Your task to perform on an android device: Add "acer predator" to the cart on newegg Image 0: 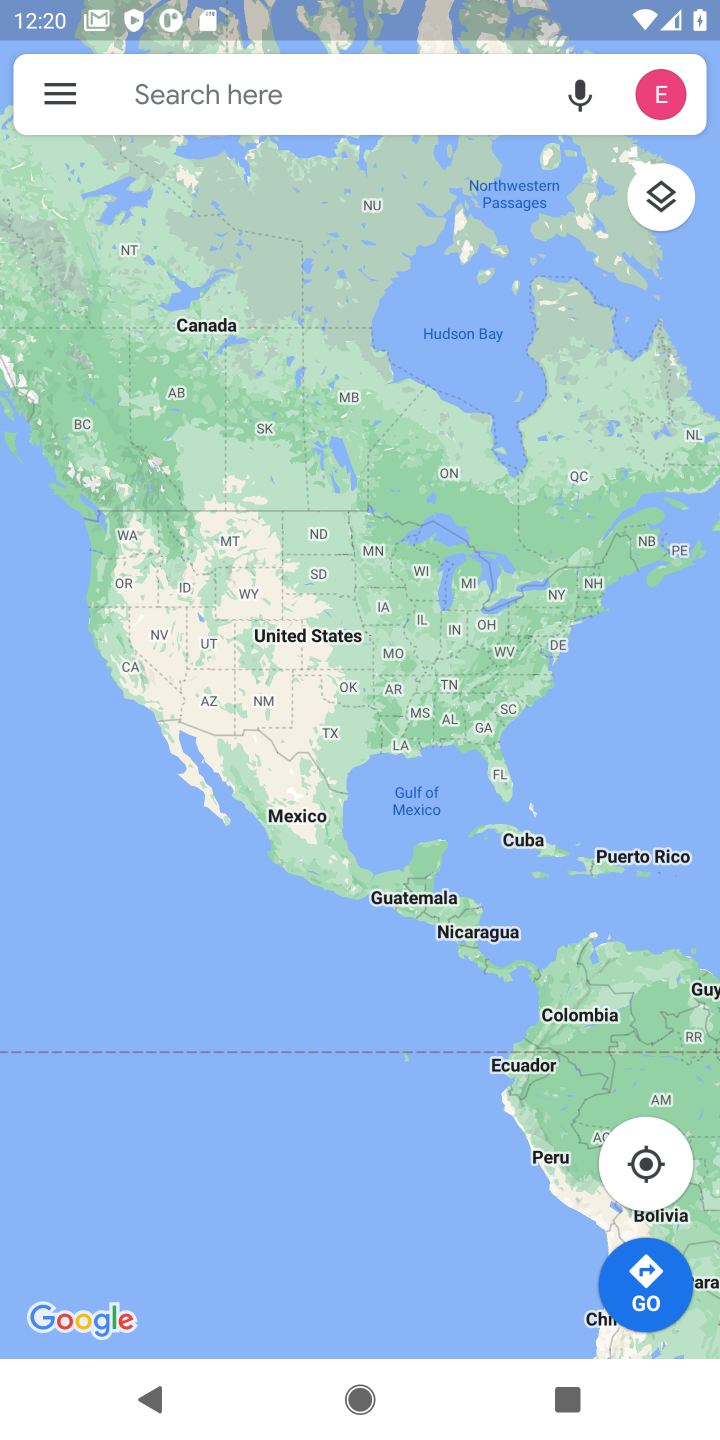
Step 0: press home button
Your task to perform on an android device: Add "acer predator" to the cart on newegg Image 1: 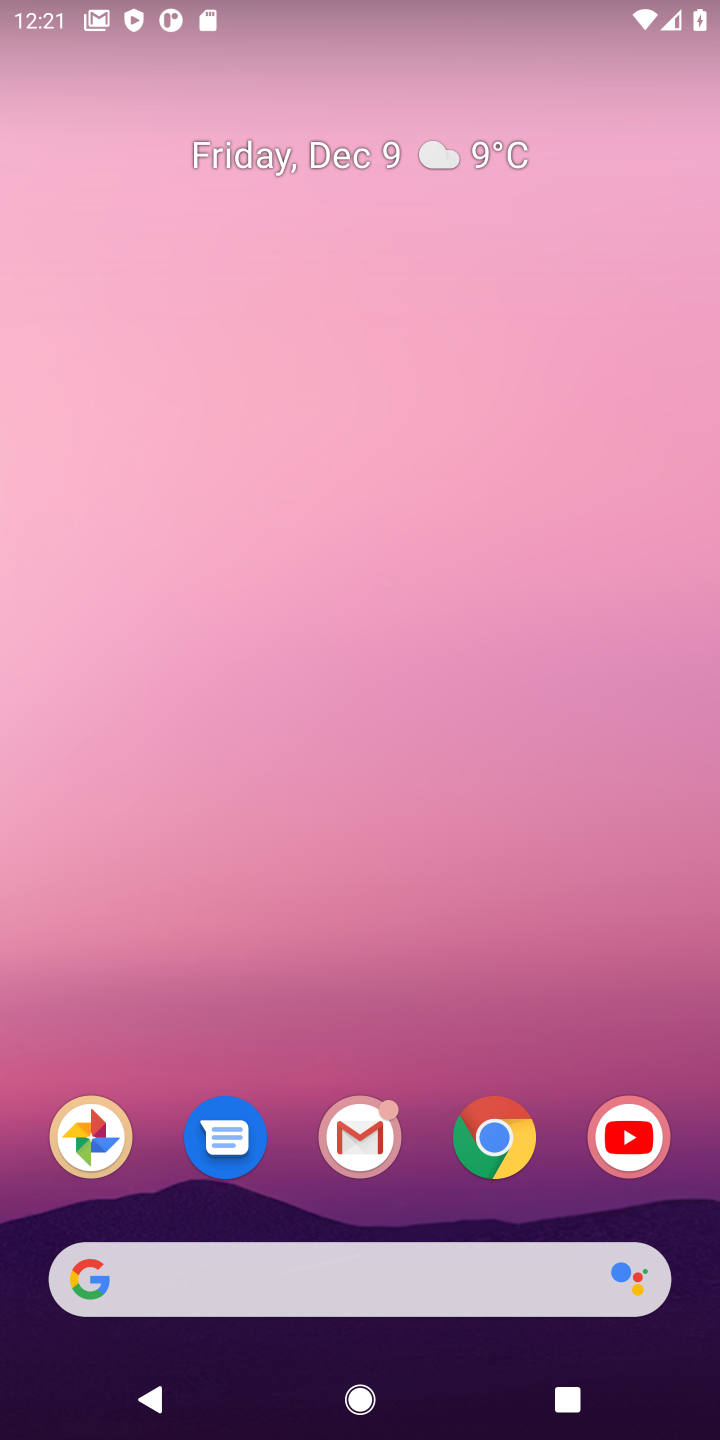
Step 1: click (429, 1288)
Your task to perform on an android device: Add "acer predator" to the cart on newegg Image 2: 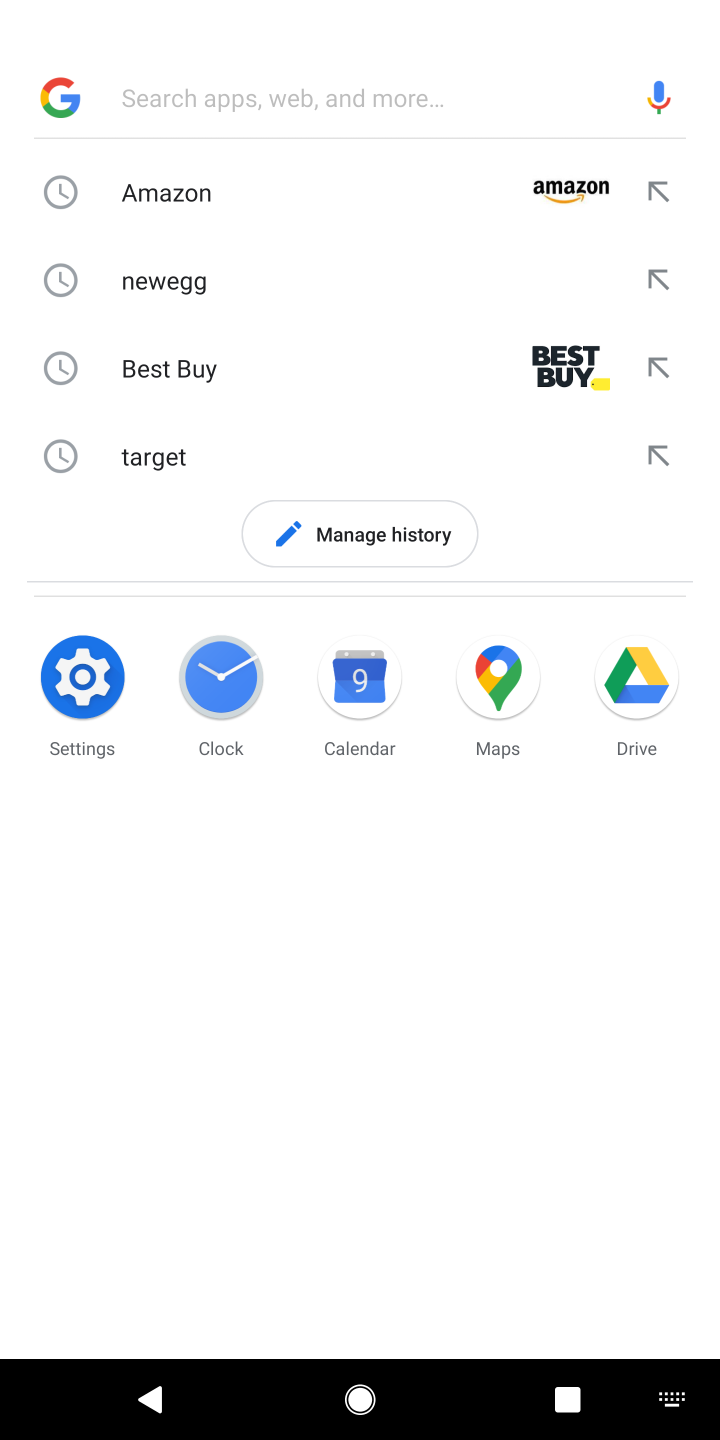
Step 2: type "newegg"
Your task to perform on an android device: Add "acer predator" to the cart on newegg Image 3: 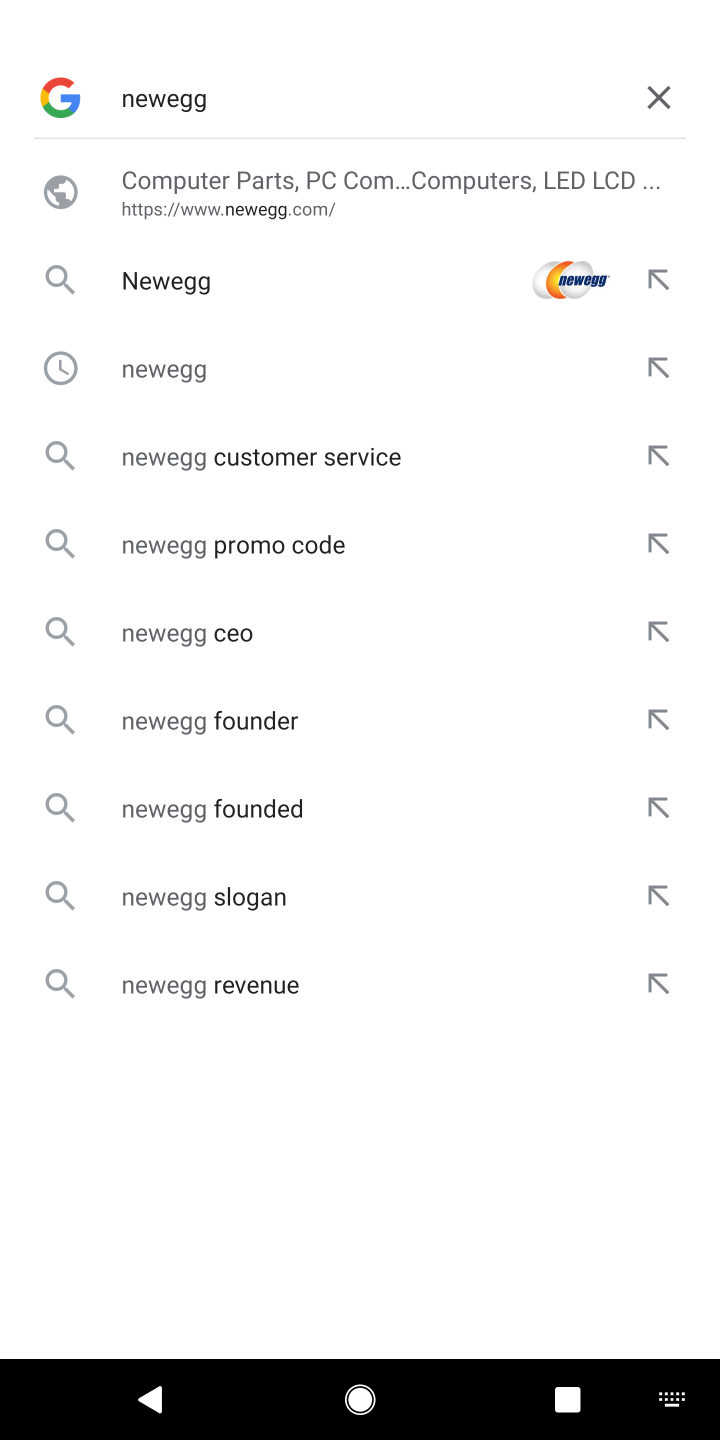
Step 3: click (247, 208)
Your task to perform on an android device: Add "acer predator" to the cart on newegg Image 4: 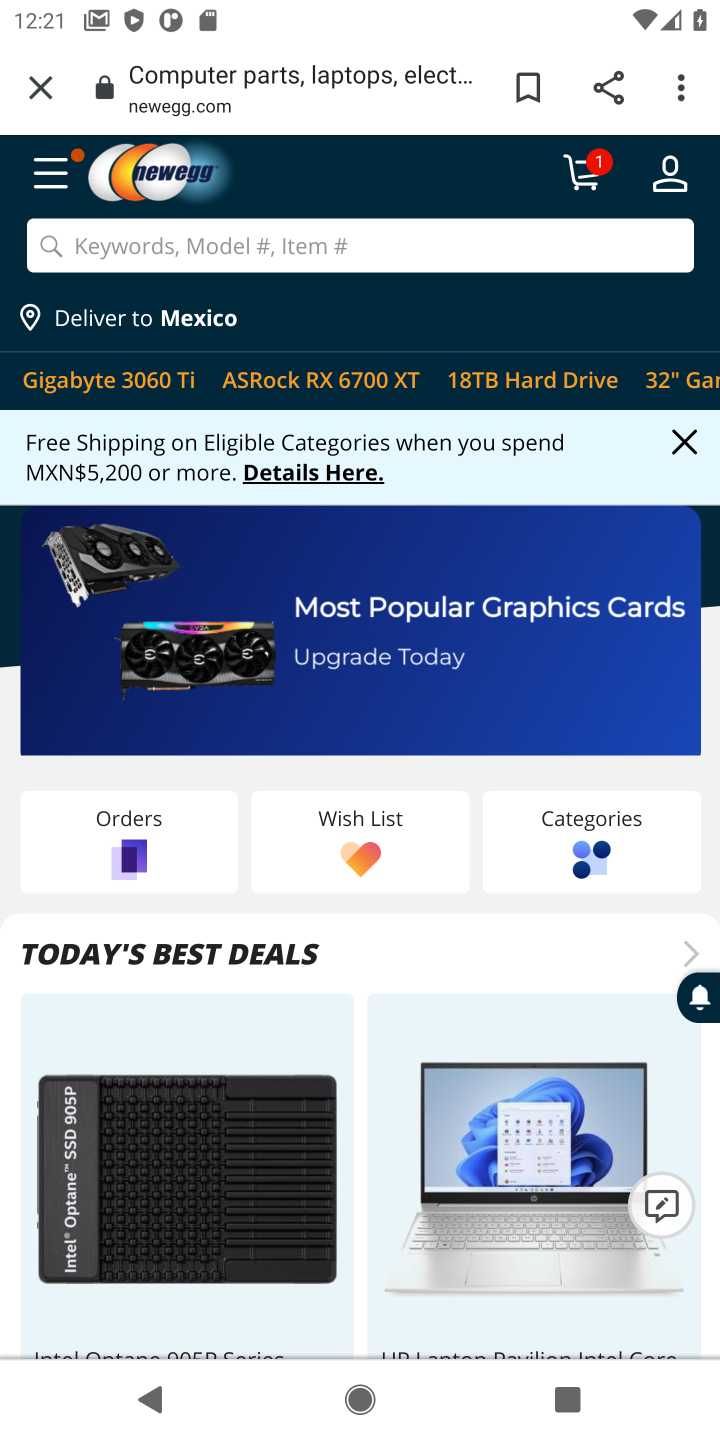
Step 4: task complete